Your task to perform on an android device: Go to display settings Image 0: 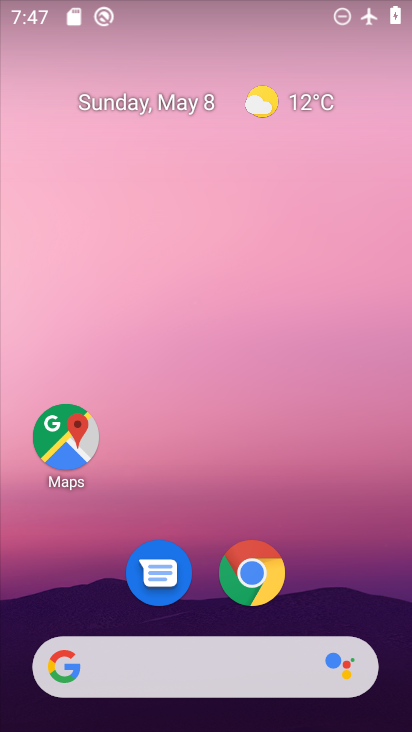
Step 0: drag from (372, 623) to (358, 6)
Your task to perform on an android device: Go to display settings Image 1: 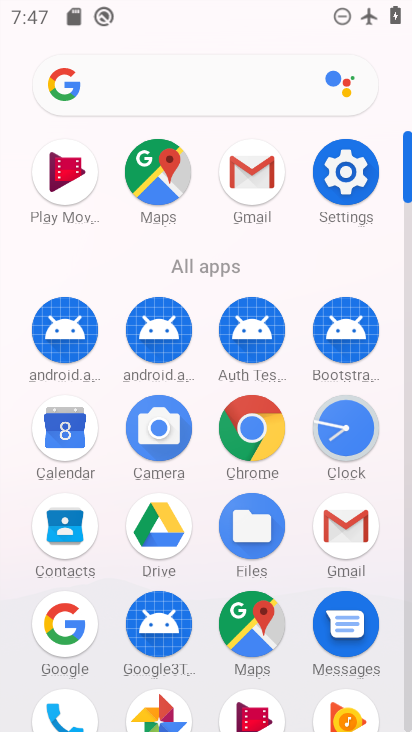
Step 1: click (338, 172)
Your task to perform on an android device: Go to display settings Image 2: 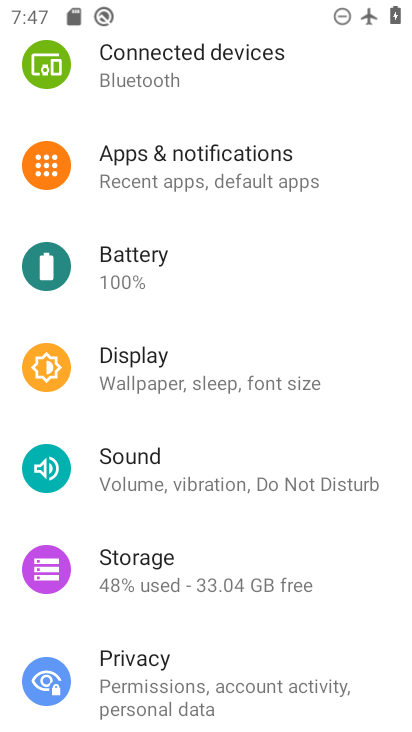
Step 2: click (116, 389)
Your task to perform on an android device: Go to display settings Image 3: 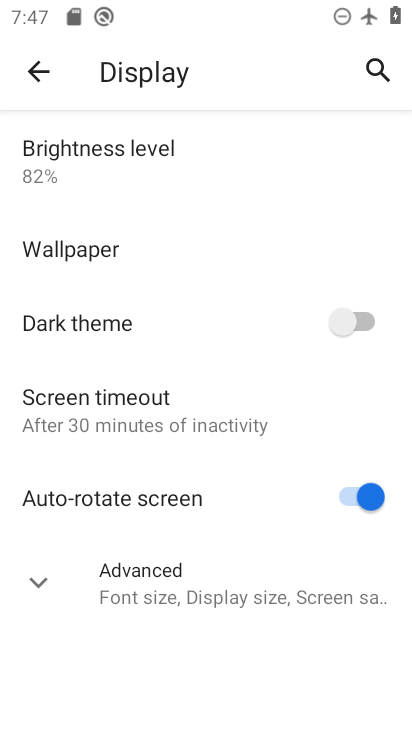
Step 3: task complete